Your task to perform on an android device: Set the phone to "Do not disturb". Image 0: 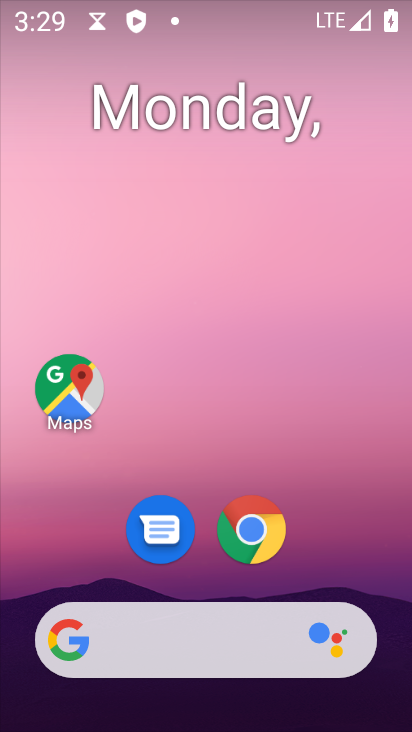
Step 0: drag from (200, 577) to (253, 289)
Your task to perform on an android device: Set the phone to "Do not disturb". Image 1: 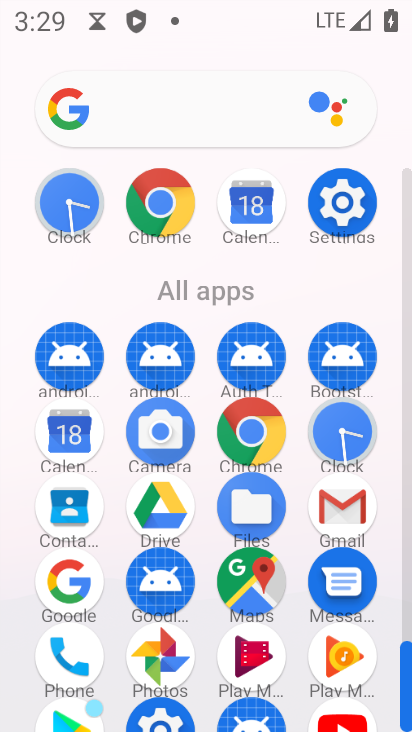
Step 1: click (345, 206)
Your task to perform on an android device: Set the phone to "Do not disturb". Image 2: 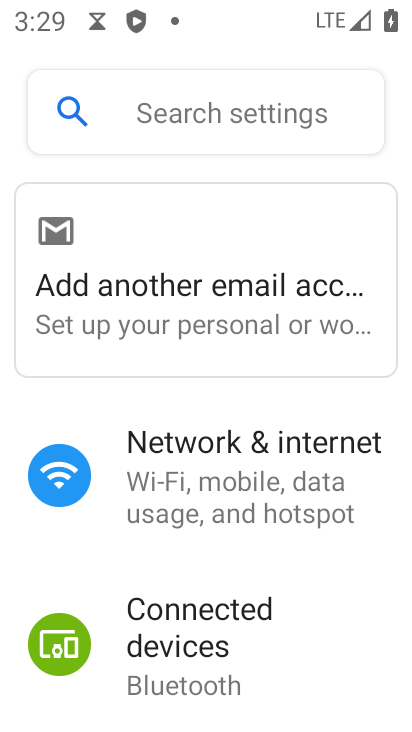
Step 2: drag from (198, 622) to (292, 257)
Your task to perform on an android device: Set the phone to "Do not disturb". Image 3: 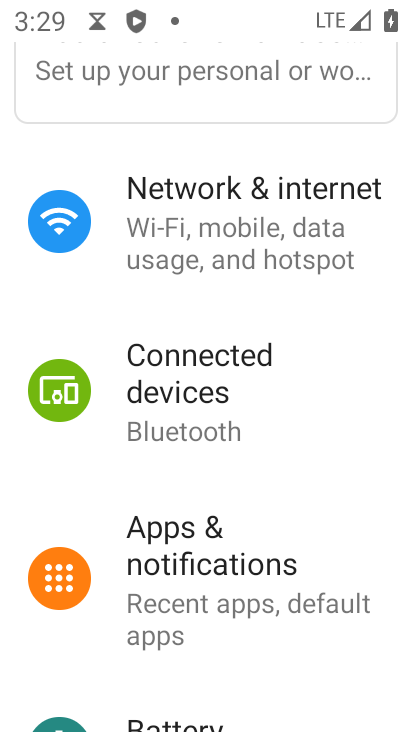
Step 3: drag from (240, 580) to (307, 115)
Your task to perform on an android device: Set the phone to "Do not disturb". Image 4: 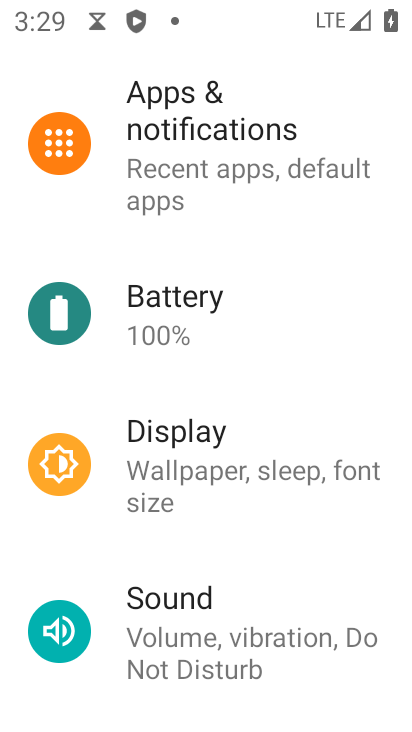
Step 4: click (216, 654)
Your task to perform on an android device: Set the phone to "Do not disturb". Image 5: 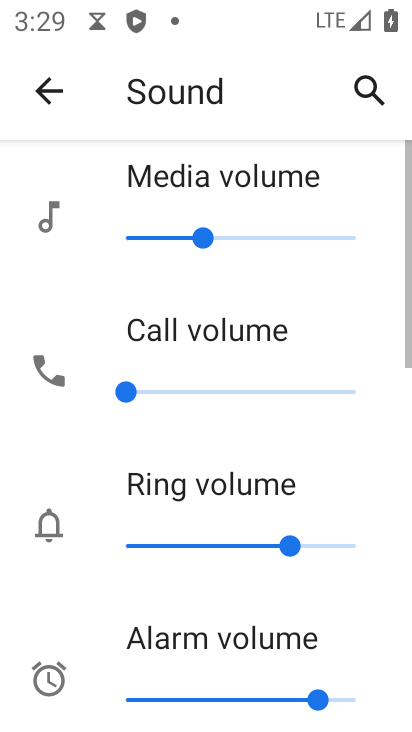
Step 5: drag from (212, 621) to (253, 182)
Your task to perform on an android device: Set the phone to "Do not disturb". Image 6: 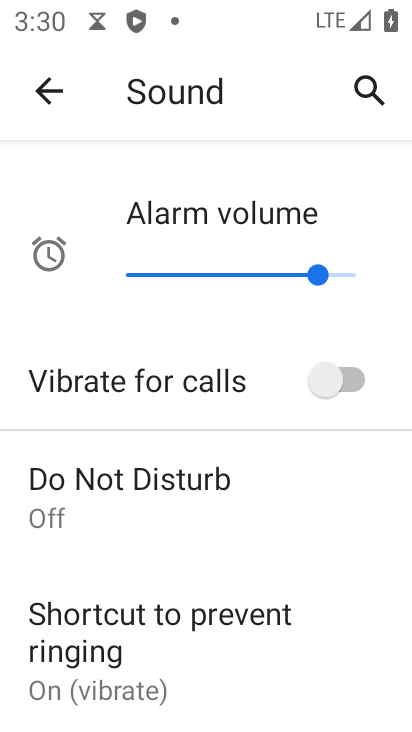
Step 6: click (105, 513)
Your task to perform on an android device: Set the phone to "Do not disturb". Image 7: 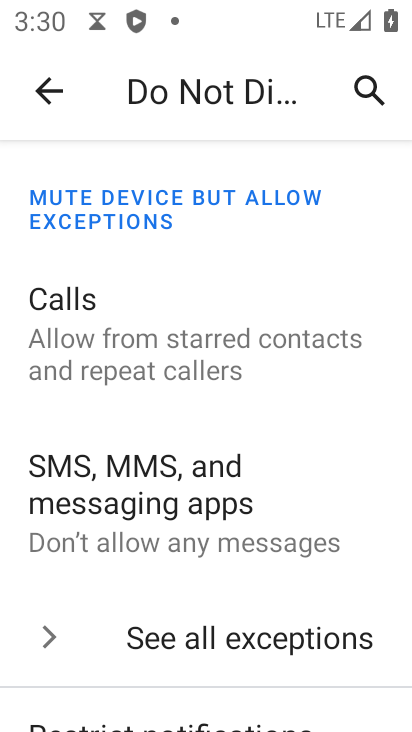
Step 7: drag from (205, 605) to (327, 142)
Your task to perform on an android device: Set the phone to "Do not disturb". Image 8: 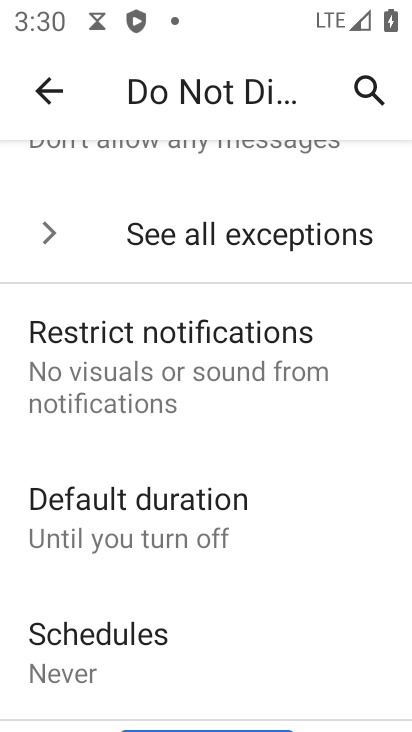
Step 8: drag from (167, 576) to (273, 233)
Your task to perform on an android device: Set the phone to "Do not disturb". Image 9: 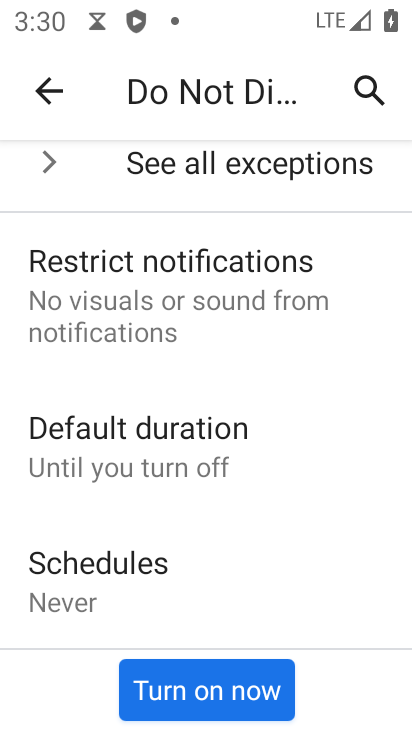
Step 9: click (183, 690)
Your task to perform on an android device: Set the phone to "Do not disturb". Image 10: 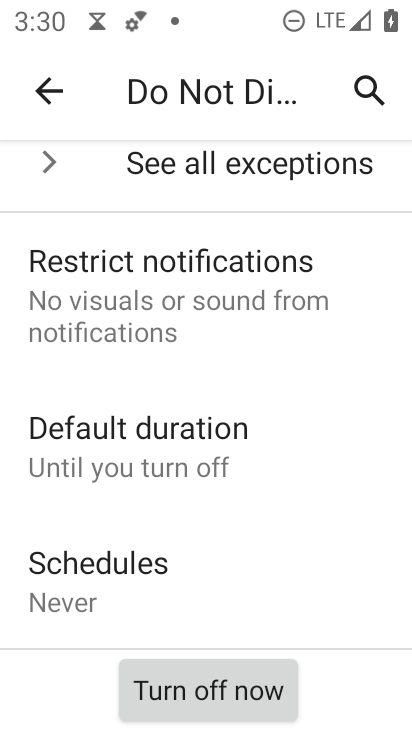
Step 10: task complete